Your task to perform on an android device: Go to notification settings Image 0: 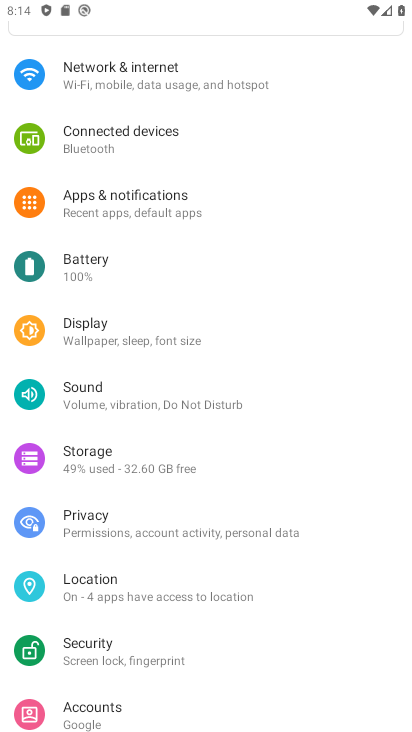
Step 0: click (129, 223)
Your task to perform on an android device: Go to notification settings Image 1: 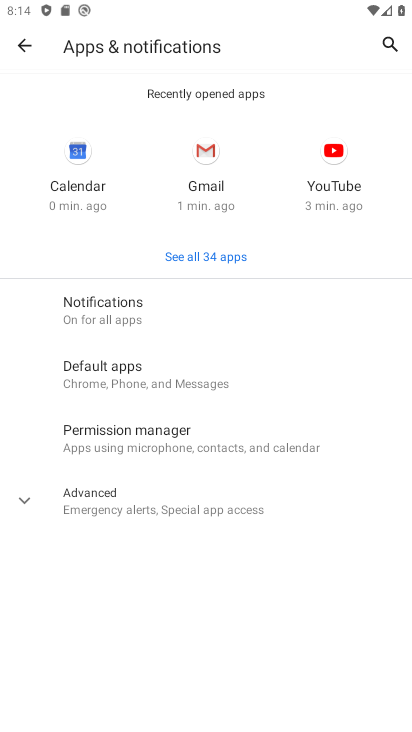
Step 1: click (235, 489)
Your task to perform on an android device: Go to notification settings Image 2: 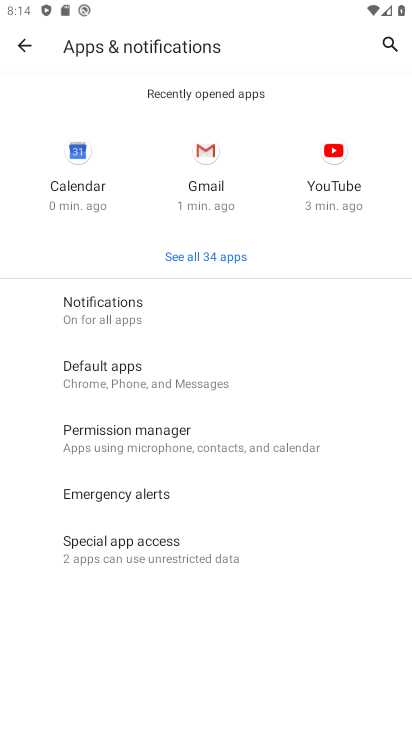
Step 2: click (200, 290)
Your task to perform on an android device: Go to notification settings Image 3: 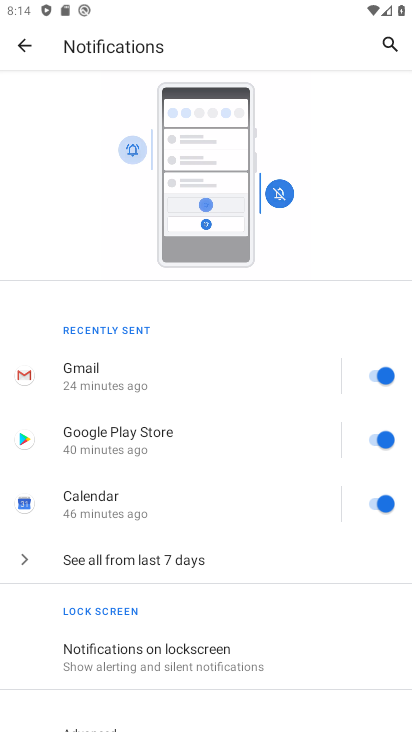
Step 3: task complete